Your task to perform on an android device: check out phone information Image 0: 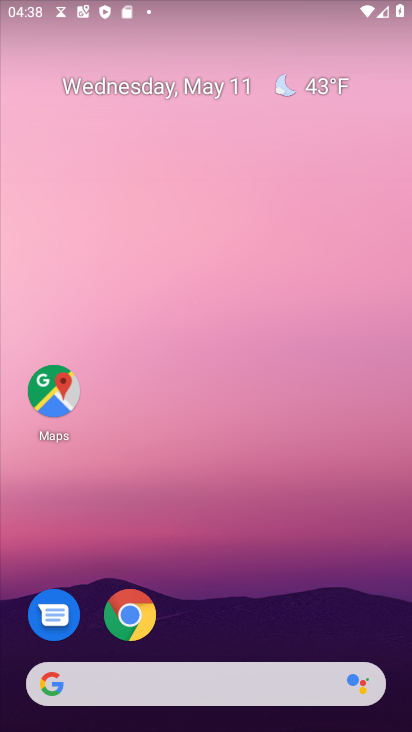
Step 0: drag from (278, 598) to (197, 4)
Your task to perform on an android device: check out phone information Image 1: 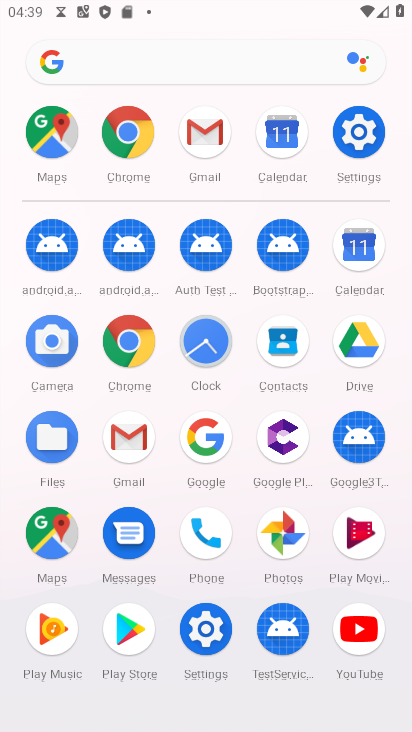
Step 1: click (204, 627)
Your task to perform on an android device: check out phone information Image 2: 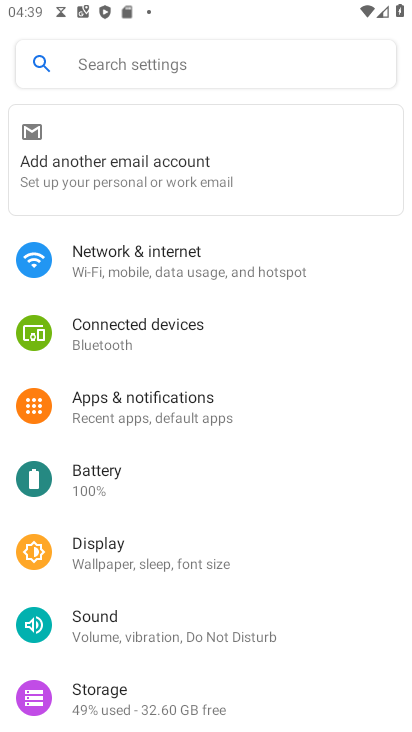
Step 2: drag from (229, 614) to (252, 149)
Your task to perform on an android device: check out phone information Image 3: 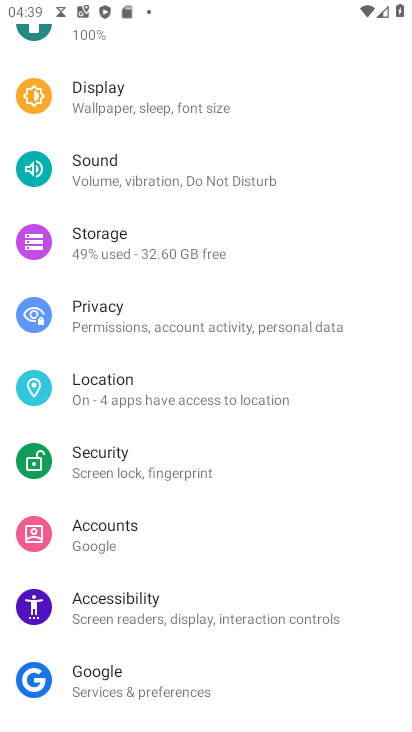
Step 3: drag from (263, 622) to (265, 101)
Your task to perform on an android device: check out phone information Image 4: 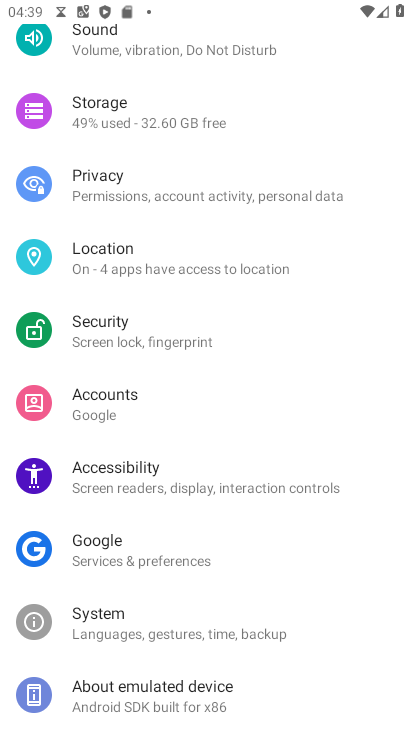
Step 4: drag from (252, 567) to (263, 39)
Your task to perform on an android device: check out phone information Image 5: 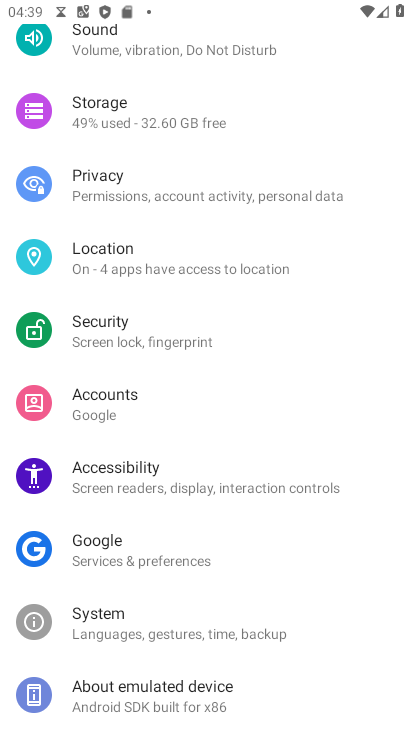
Step 5: click (158, 691)
Your task to perform on an android device: check out phone information Image 6: 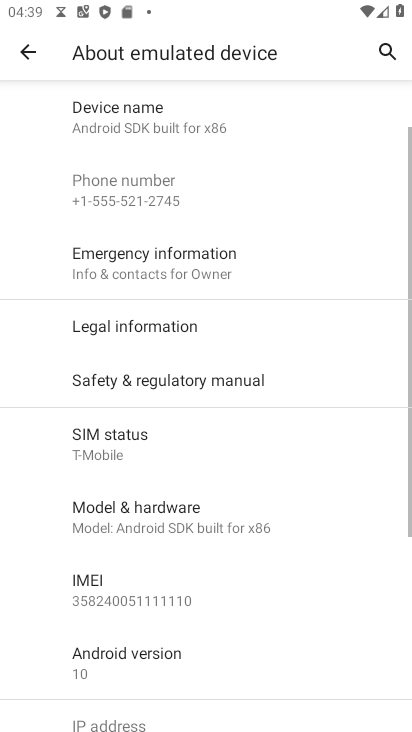
Step 6: task complete